Your task to perform on an android device: change timer sound Image 0: 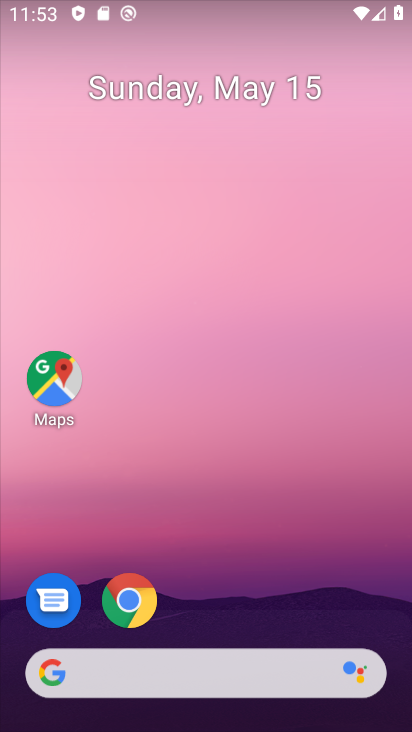
Step 0: drag from (212, 727) to (214, 227)
Your task to perform on an android device: change timer sound Image 1: 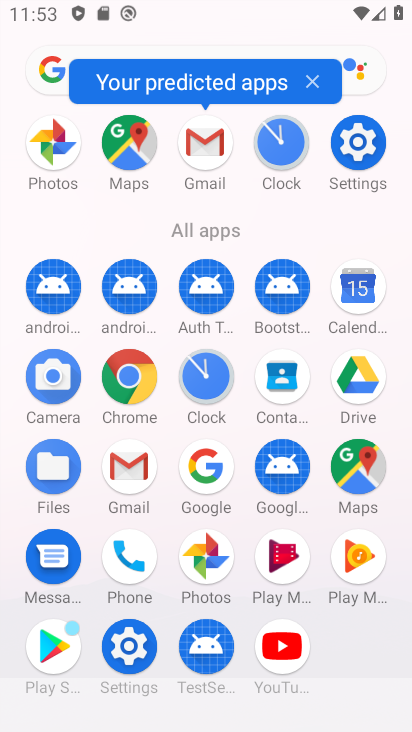
Step 1: click (193, 381)
Your task to perform on an android device: change timer sound Image 2: 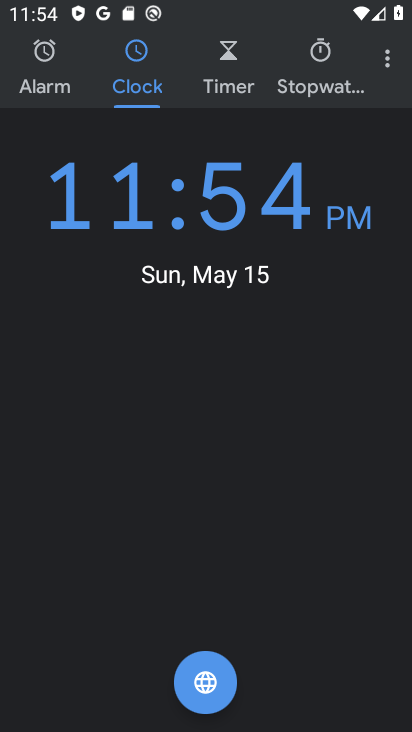
Step 2: click (388, 63)
Your task to perform on an android device: change timer sound Image 3: 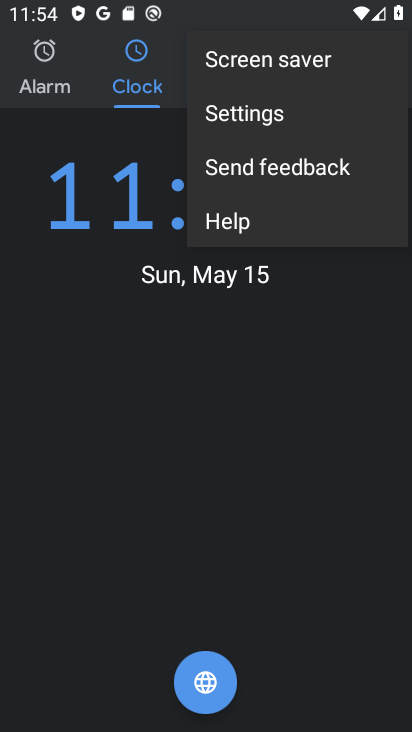
Step 3: click (247, 115)
Your task to perform on an android device: change timer sound Image 4: 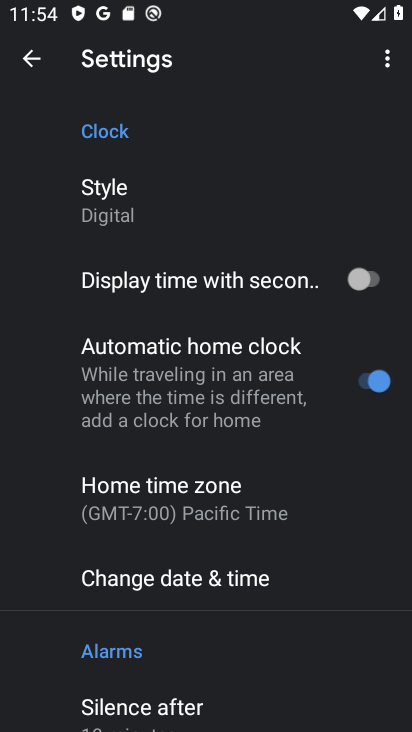
Step 4: drag from (174, 640) to (207, 280)
Your task to perform on an android device: change timer sound Image 5: 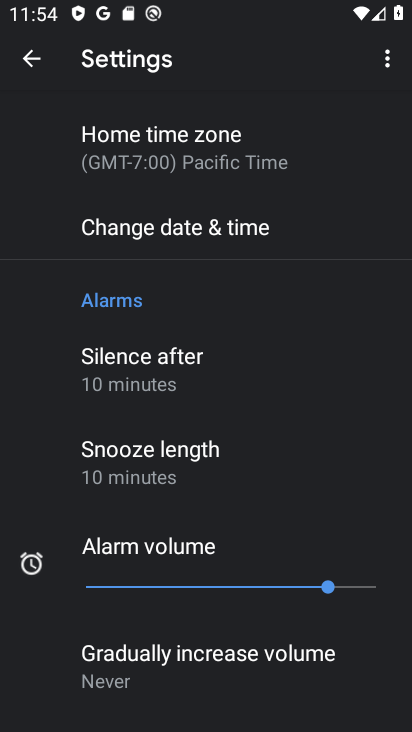
Step 5: drag from (166, 513) to (161, 240)
Your task to perform on an android device: change timer sound Image 6: 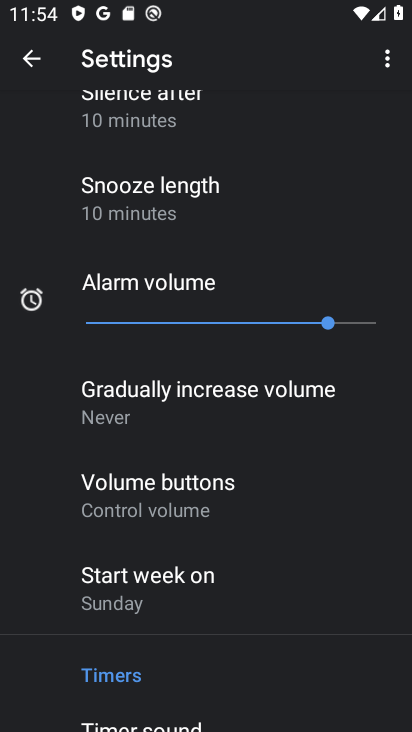
Step 6: drag from (165, 620) to (162, 352)
Your task to perform on an android device: change timer sound Image 7: 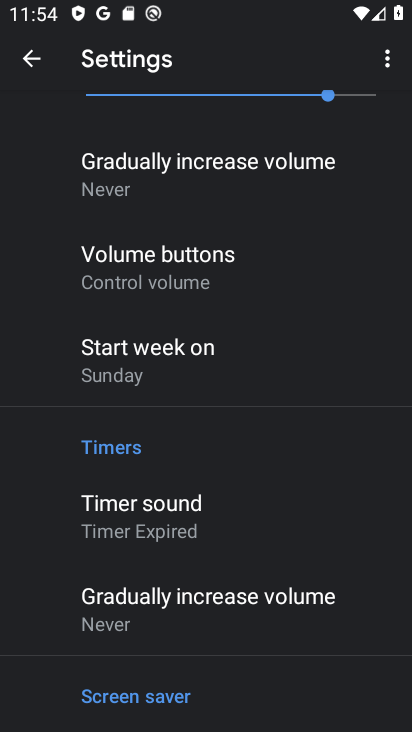
Step 7: click (170, 516)
Your task to perform on an android device: change timer sound Image 8: 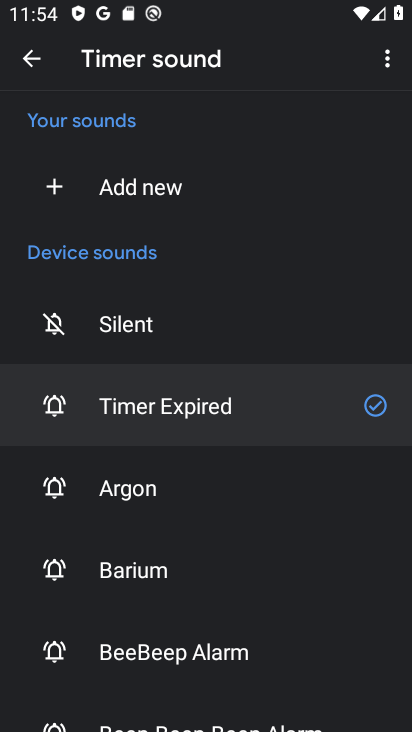
Step 8: click (123, 562)
Your task to perform on an android device: change timer sound Image 9: 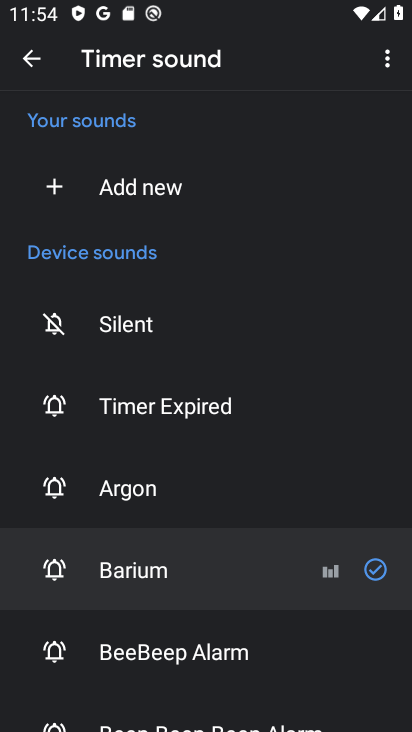
Step 9: task complete